Your task to perform on an android device: refresh tabs in the chrome app Image 0: 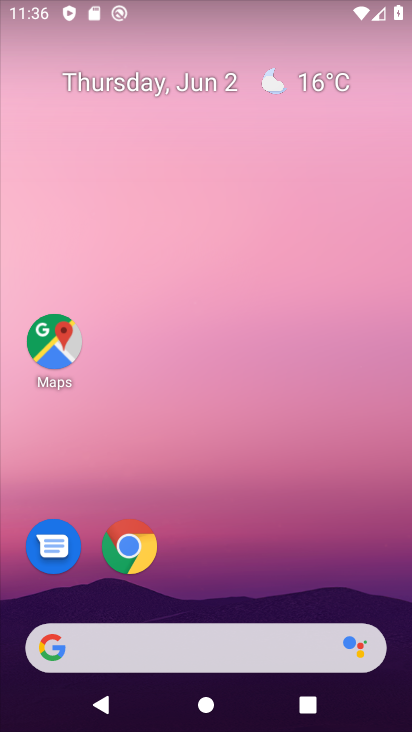
Step 0: drag from (382, 582) to (387, 137)
Your task to perform on an android device: refresh tabs in the chrome app Image 1: 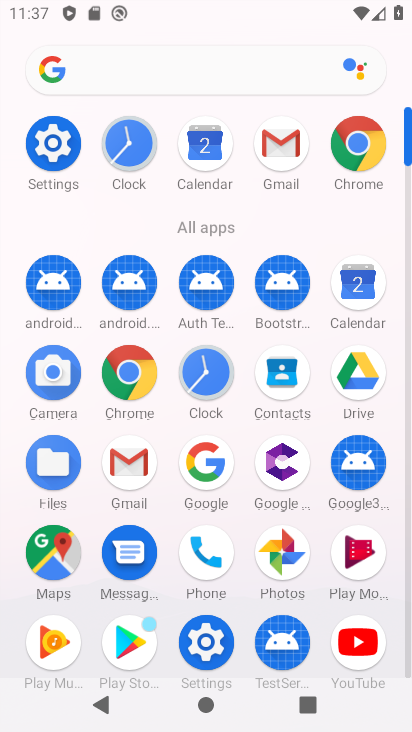
Step 1: click (135, 379)
Your task to perform on an android device: refresh tabs in the chrome app Image 2: 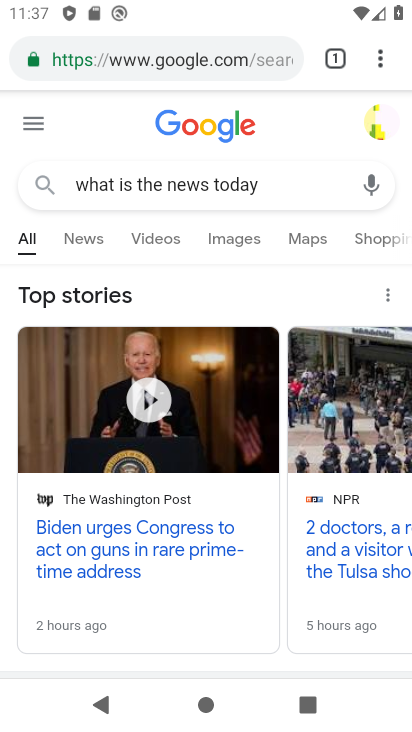
Step 2: task complete